Your task to perform on an android device: Go to Yahoo.com Image 0: 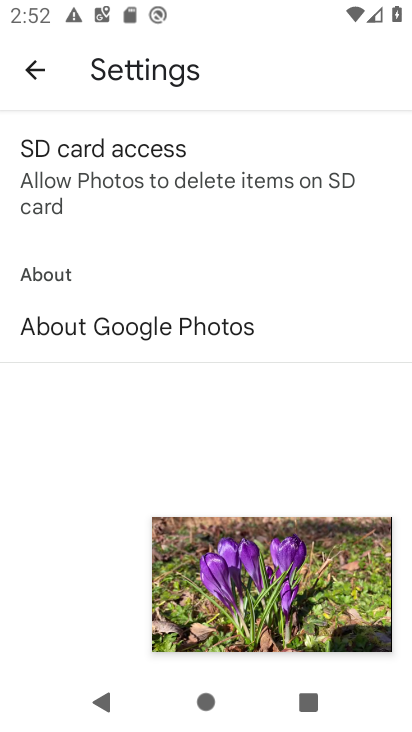
Step 0: drag from (243, 570) to (308, 458)
Your task to perform on an android device: Go to Yahoo.com Image 1: 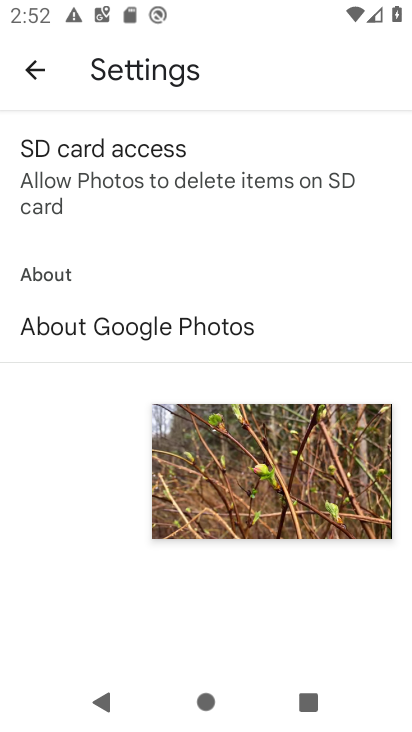
Step 1: click (306, 456)
Your task to perform on an android device: Go to Yahoo.com Image 2: 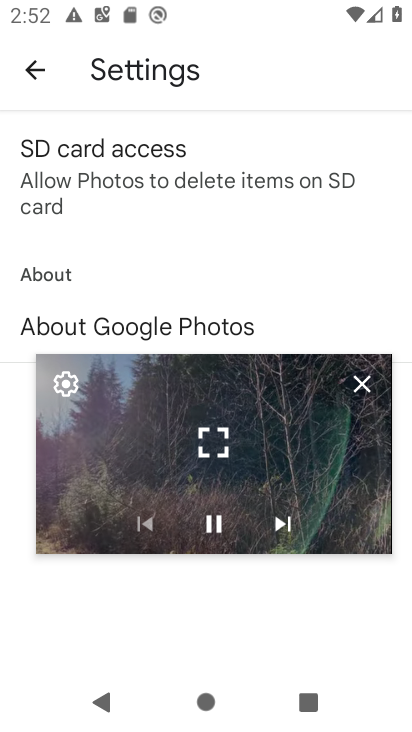
Step 2: click (356, 381)
Your task to perform on an android device: Go to Yahoo.com Image 3: 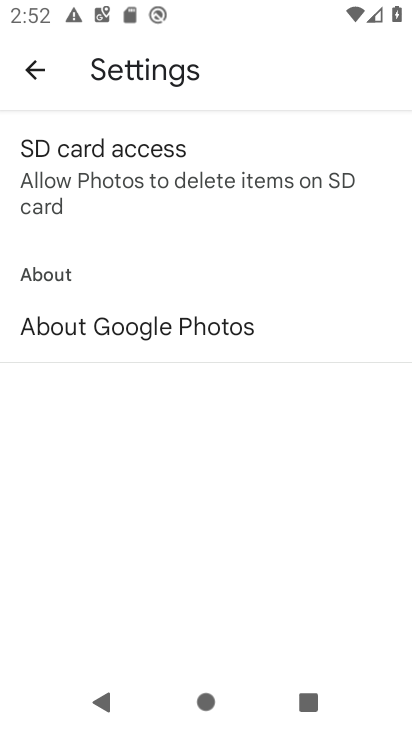
Step 3: press home button
Your task to perform on an android device: Go to Yahoo.com Image 4: 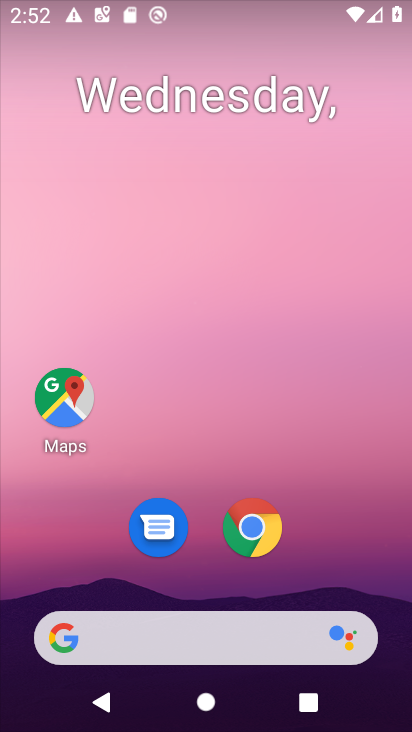
Step 4: drag from (321, 492) to (309, 66)
Your task to perform on an android device: Go to Yahoo.com Image 5: 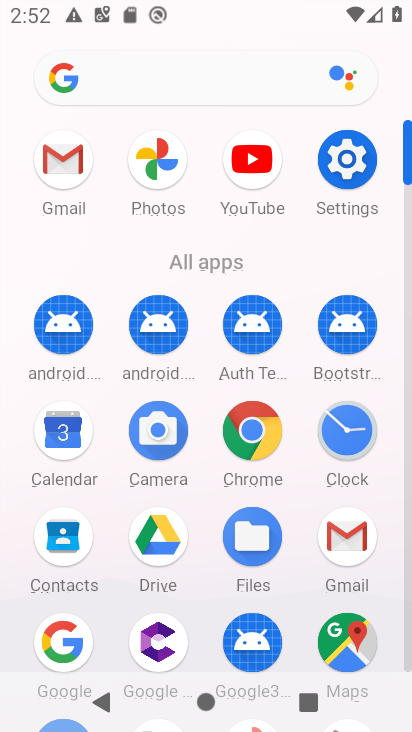
Step 5: click (254, 435)
Your task to perform on an android device: Go to Yahoo.com Image 6: 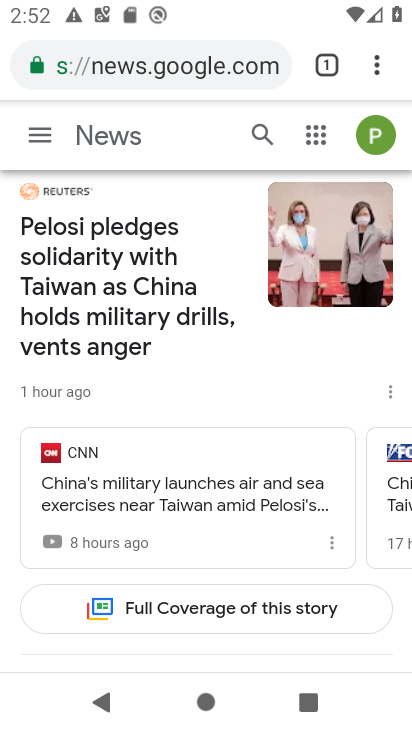
Step 6: click (175, 62)
Your task to perform on an android device: Go to Yahoo.com Image 7: 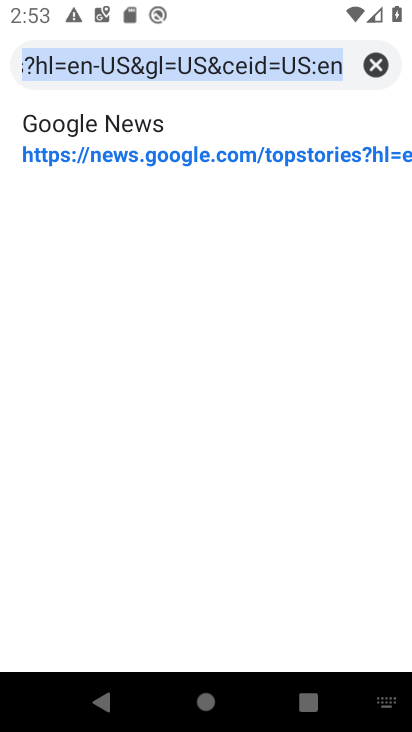
Step 7: type "yahoo.com"
Your task to perform on an android device: Go to Yahoo.com Image 8: 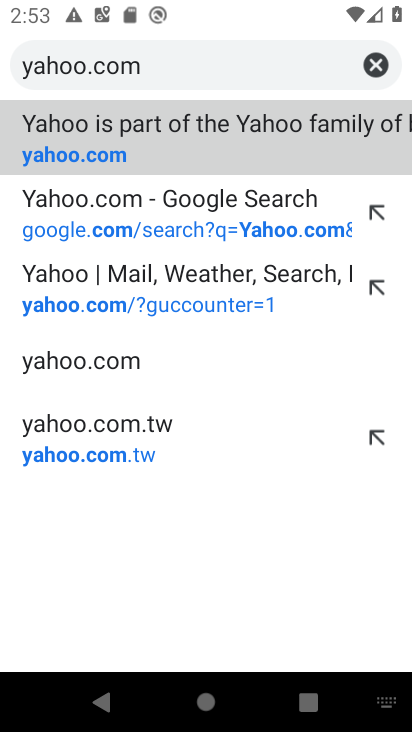
Step 8: click (67, 157)
Your task to perform on an android device: Go to Yahoo.com Image 9: 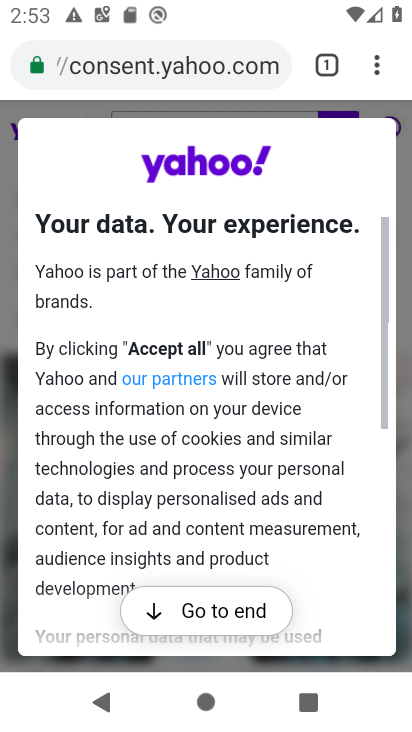
Step 9: task complete